Your task to perform on an android device: toggle show notifications on the lock screen Image 0: 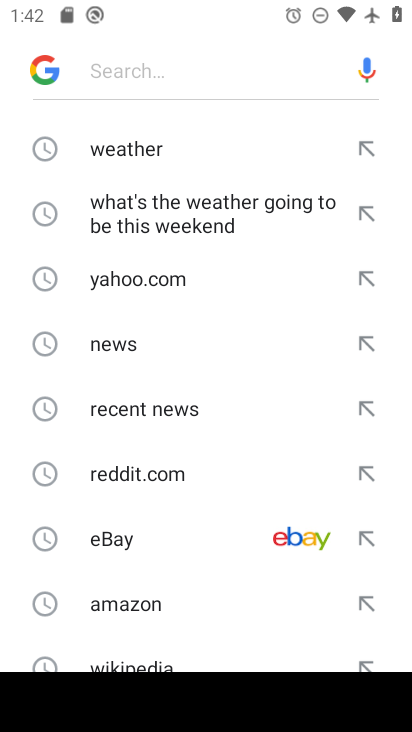
Step 0: press home button
Your task to perform on an android device: toggle show notifications on the lock screen Image 1: 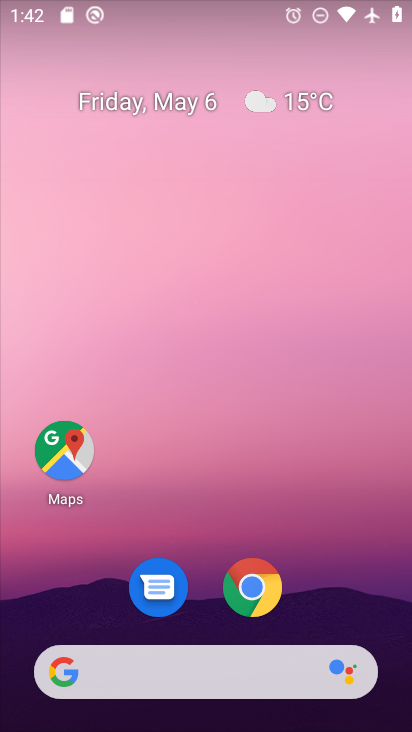
Step 1: drag from (340, 604) to (224, 93)
Your task to perform on an android device: toggle show notifications on the lock screen Image 2: 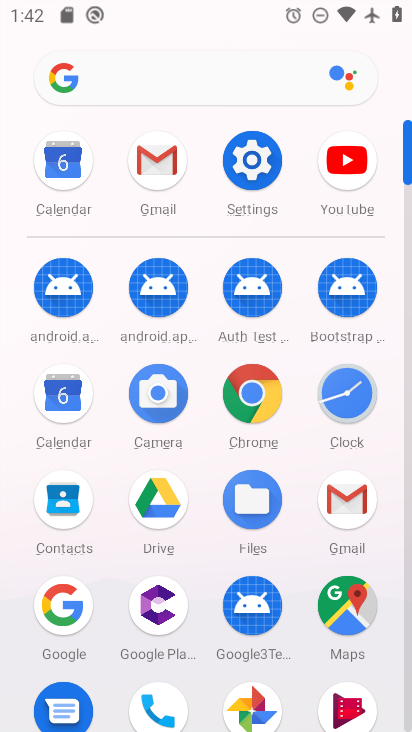
Step 2: click (257, 166)
Your task to perform on an android device: toggle show notifications on the lock screen Image 3: 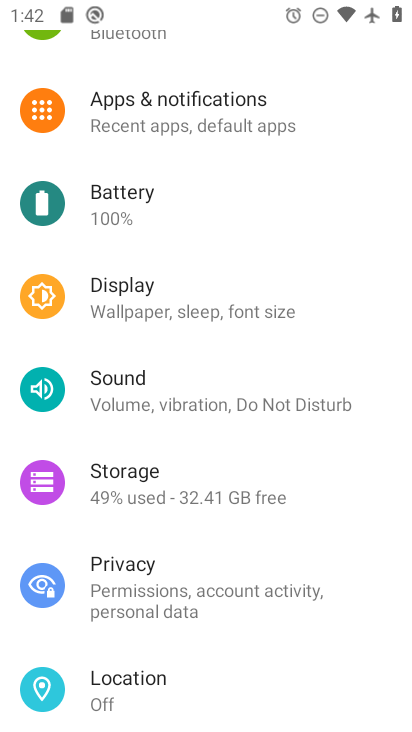
Step 3: click (191, 128)
Your task to perform on an android device: toggle show notifications on the lock screen Image 4: 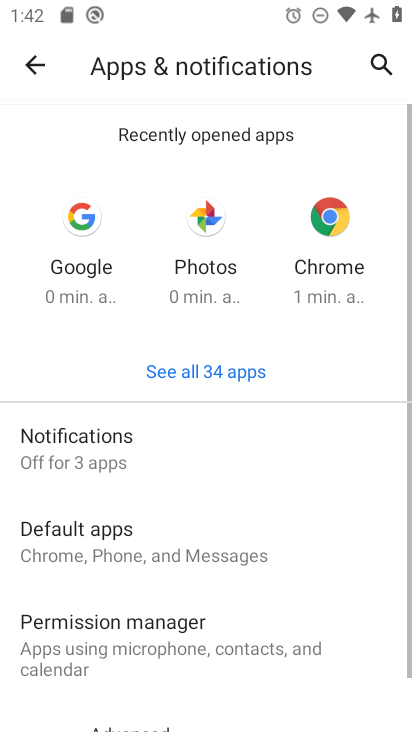
Step 4: drag from (244, 583) to (225, 433)
Your task to perform on an android device: toggle show notifications on the lock screen Image 5: 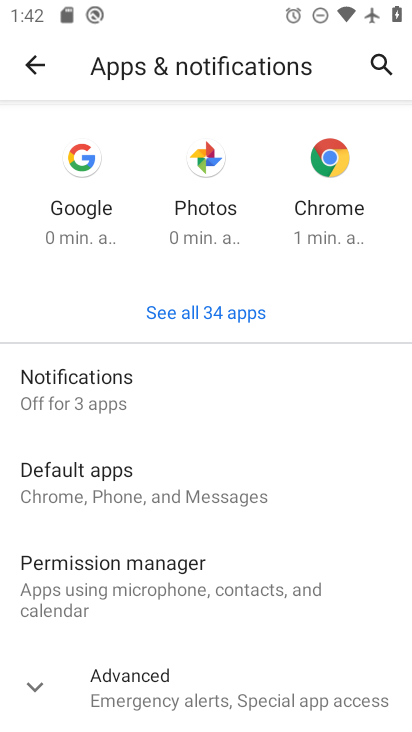
Step 5: click (157, 394)
Your task to perform on an android device: toggle show notifications on the lock screen Image 6: 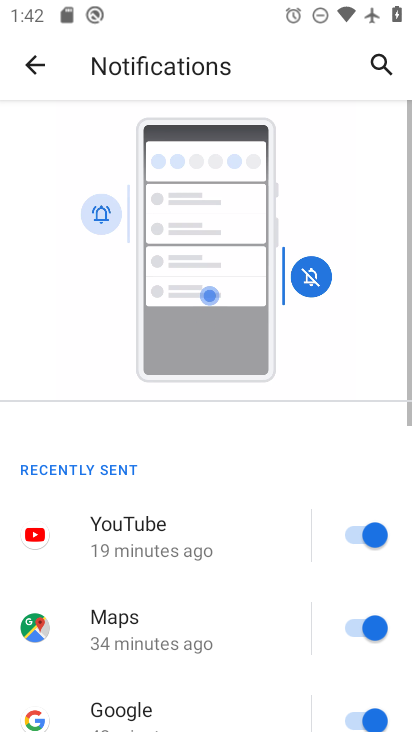
Step 6: drag from (239, 650) to (249, 159)
Your task to perform on an android device: toggle show notifications on the lock screen Image 7: 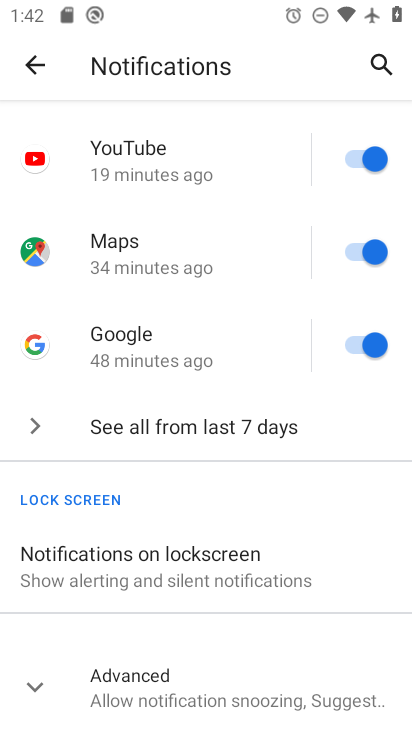
Step 7: drag from (251, 585) to (219, 178)
Your task to perform on an android device: toggle show notifications on the lock screen Image 8: 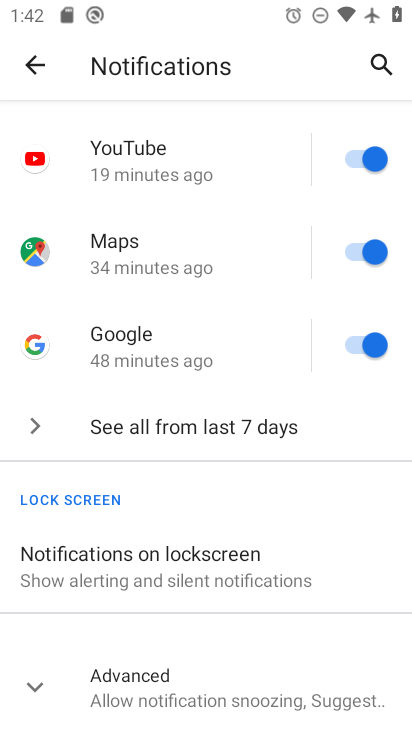
Step 8: click (182, 565)
Your task to perform on an android device: toggle show notifications on the lock screen Image 9: 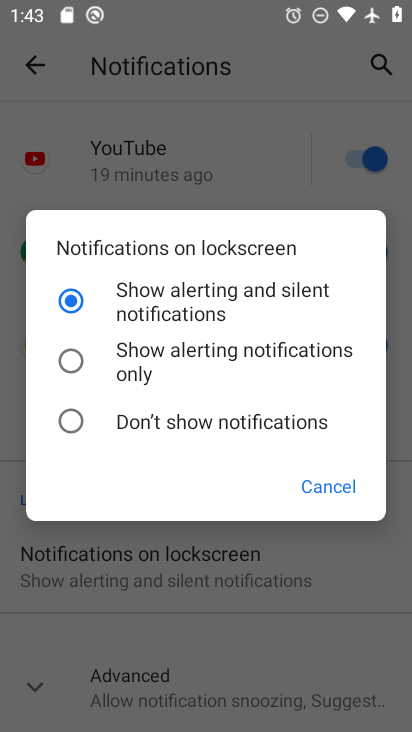
Step 9: click (121, 416)
Your task to perform on an android device: toggle show notifications on the lock screen Image 10: 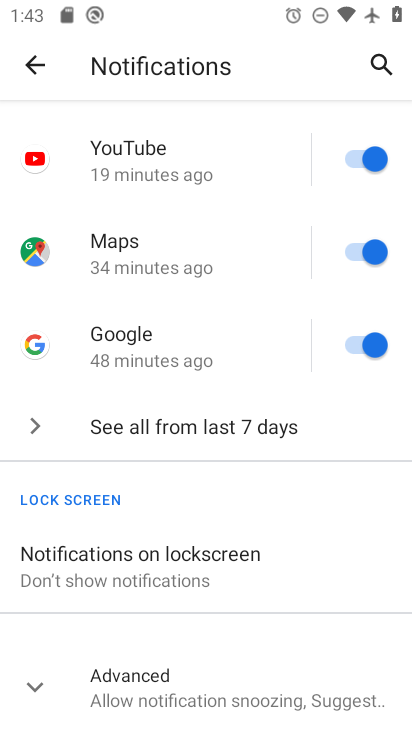
Step 10: task complete